Your task to perform on an android device: open chrome privacy settings Image 0: 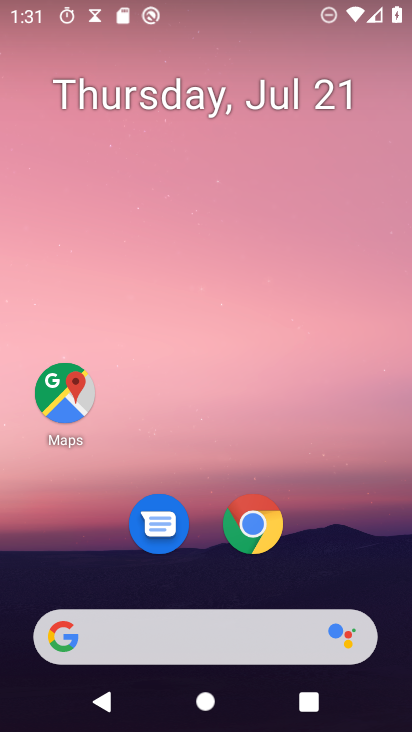
Step 0: click (246, 527)
Your task to perform on an android device: open chrome privacy settings Image 1: 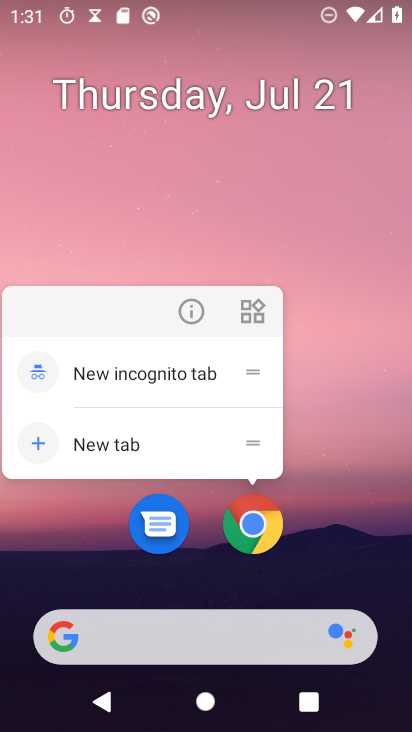
Step 1: click (255, 528)
Your task to perform on an android device: open chrome privacy settings Image 2: 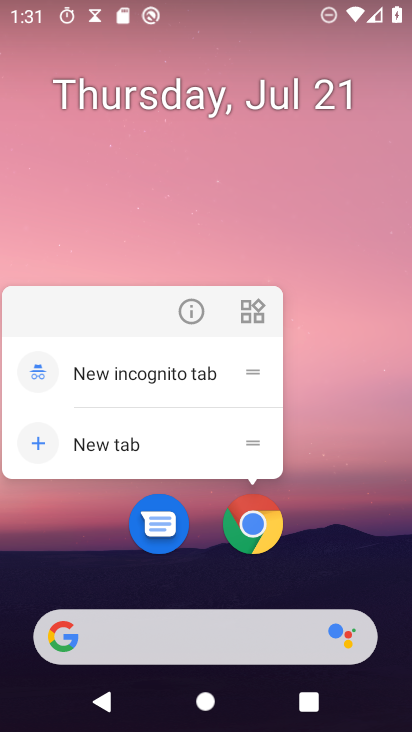
Step 2: click (255, 528)
Your task to perform on an android device: open chrome privacy settings Image 3: 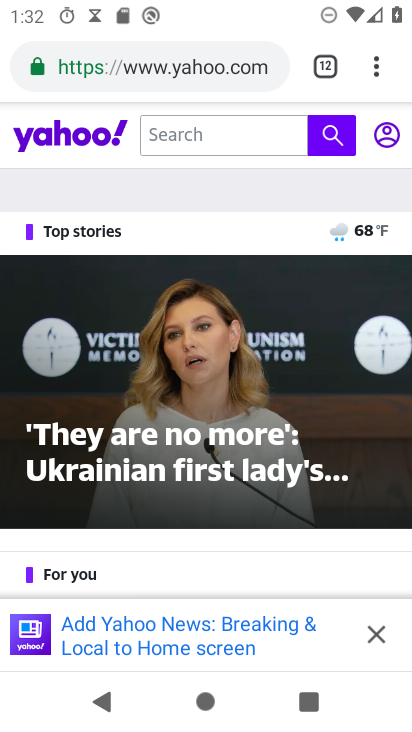
Step 3: drag from (370, 66) to (261, 529)
Your task to perform on an android device: open chrome privacy settings Image 4: 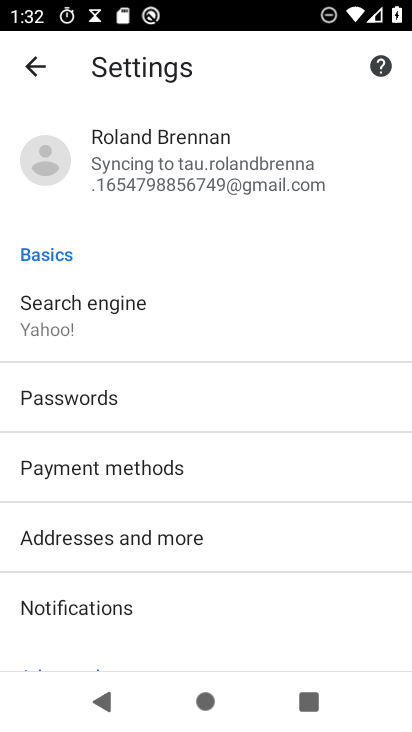
Step 4: drag from (267, 562) to (336, 171)
Your task to perform on an android device: open chrome privacy settings Image 5: 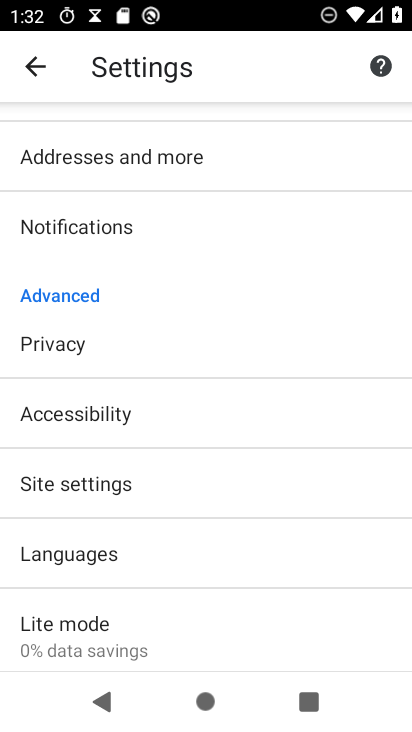
Step 5: click (71, 343)
Your task to perform on an android device: open chrome privacy settings Image 6: 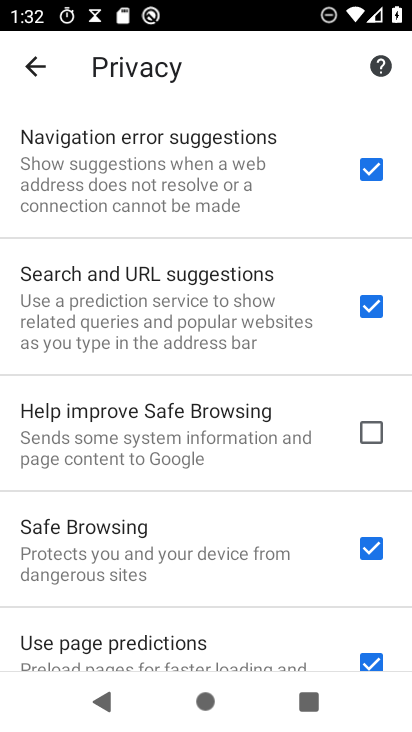
Step 6: task complete